Your task to perform on an android device: create a new album in the google photos Image 0: 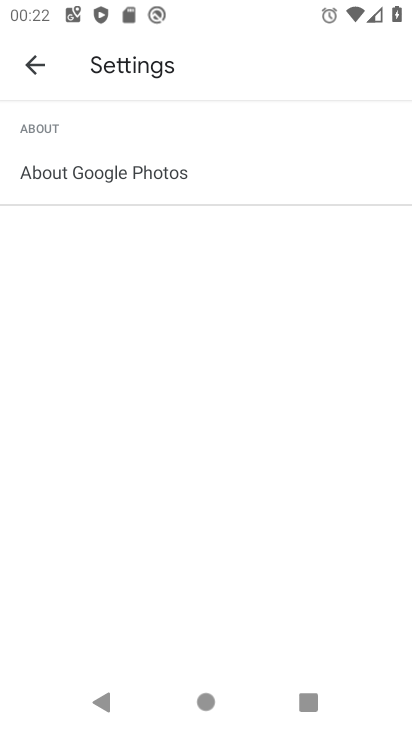
Step 0: press home button
Your task to perform on an android device: create a new album in the google photos Image 1: 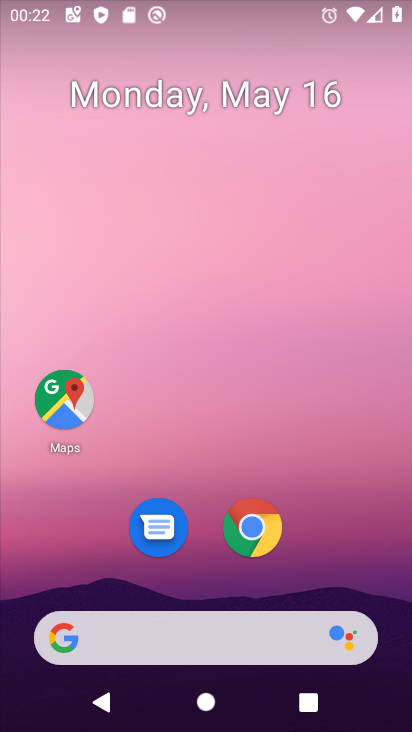
Step 1: drag from (329, 550) to (250, 20)
Your task to perform on an android device: create a new album in the google photos Image 2: 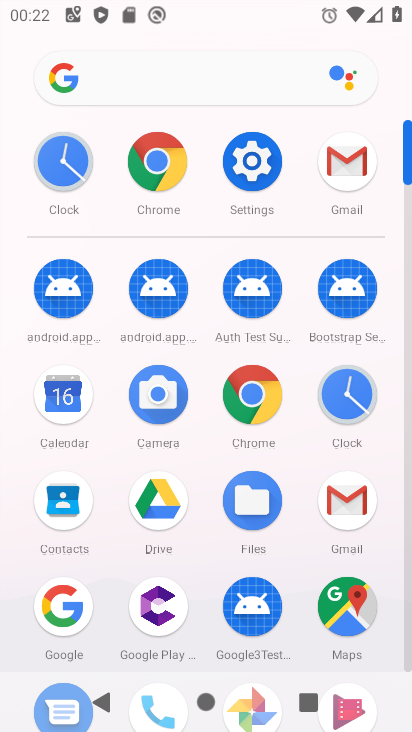
Step 2: click (407, 553)
Your task to perform on an android device: create a new album in the google photos Image 3: 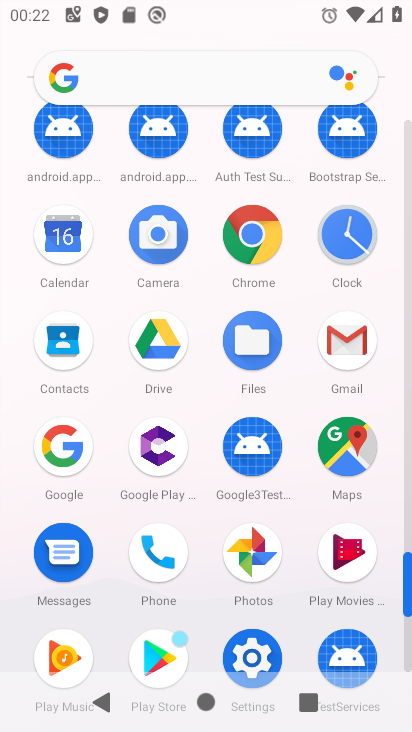
Step 3: click (255, 554)
Your task to perform on an android device: create a new album in the google photos Image 4: 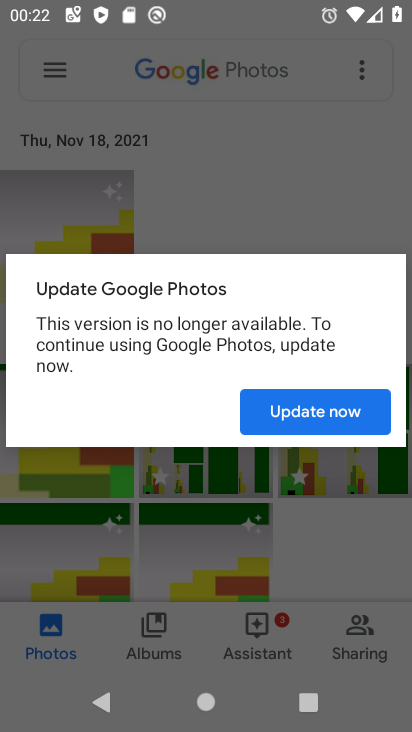
Step 4: click (272, 422)
Your task to perform on an android device: create a new album in the google photos Image 5: 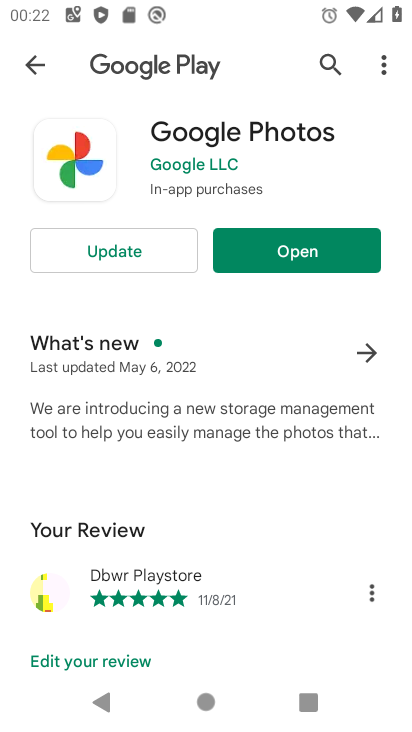
Step 5: click (120, 258)
Your task to perform on an android device: create a new album in the google photos Image 6: 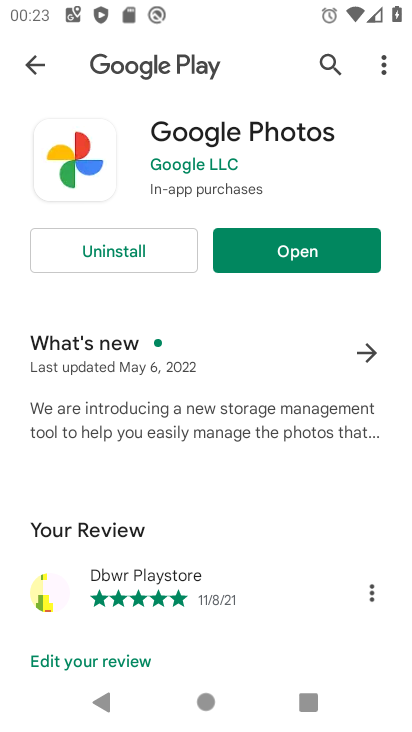
Step 6: click (279, 254)
Your task to perform on an android device: create a new album in the google photos Image 7: 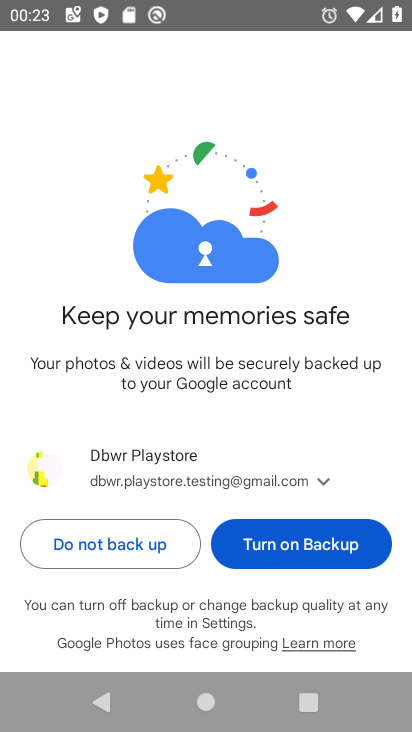
Step 7: click (249, 525)
Your task to perform on an android device: create a new album in the google photos Image 8: 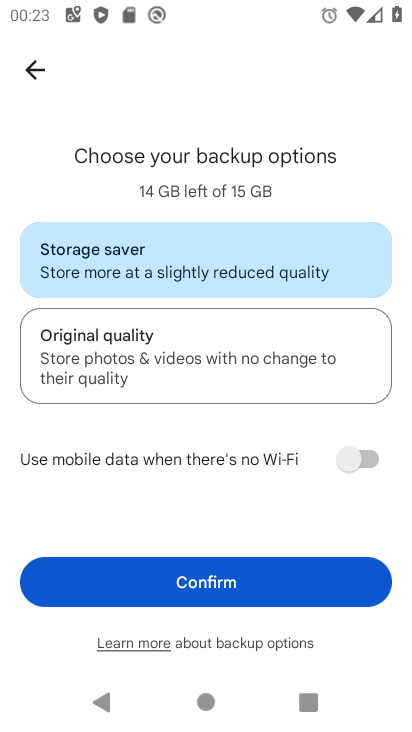
Step 8: click (249, 569)
Your task to perform on an android device: create a new album in the google photos Image 9: 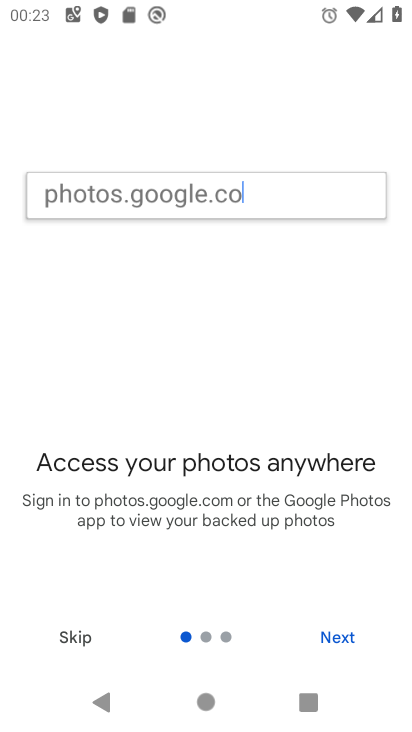
Step 9: click (346, 641)
Your task to perform on an android device: create a new album in the google photos Image 10: 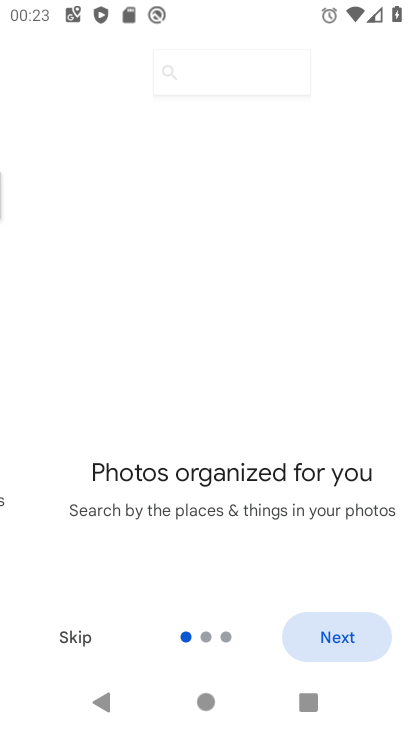
Step 10: click (346, 641)
Your task to perform on an android device: create a new album in the google photos Image 11: 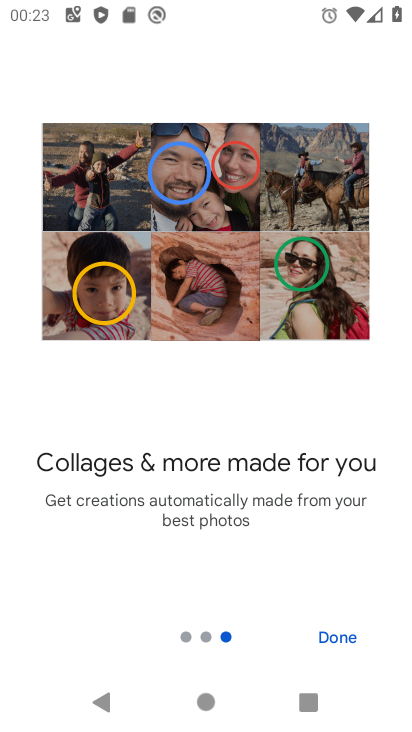
Step 11: click (346, 641)
Your task to perform on an android device: create a new album in the google photos Image 12: 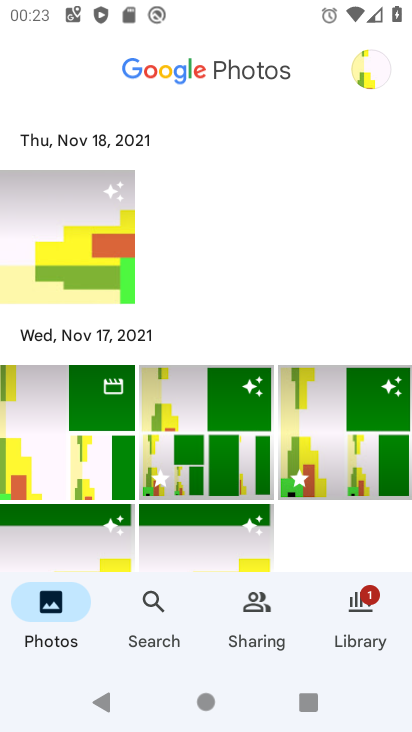
Step 12: click (382, 607)
Your task to perform on an android device: create a new album in the google photos Image 13: 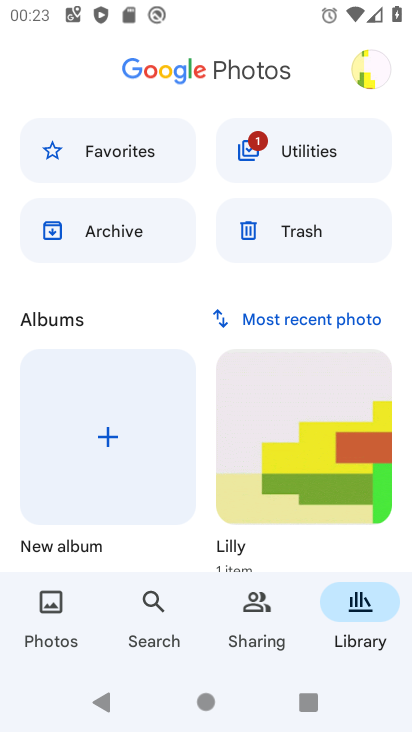
Step 13: click (101, 399)
Your task to perform on an android device: create a new album in the google photos Image 14: 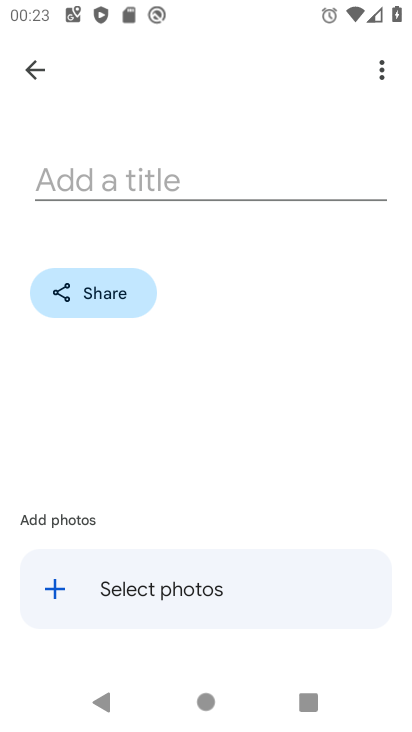
Step 14: click (133, 179)
Your task to perform on an android device: create a new album in the google photos Image 15: 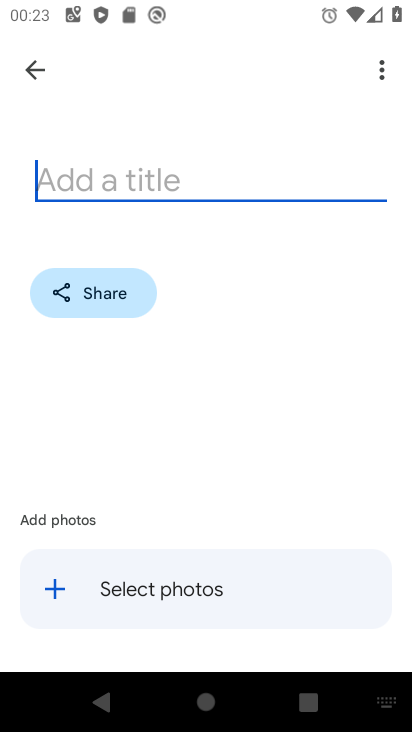
Step 15: type "dcsdvd"
Your task to perform on an android device: create a new album in the google photos Image 16: 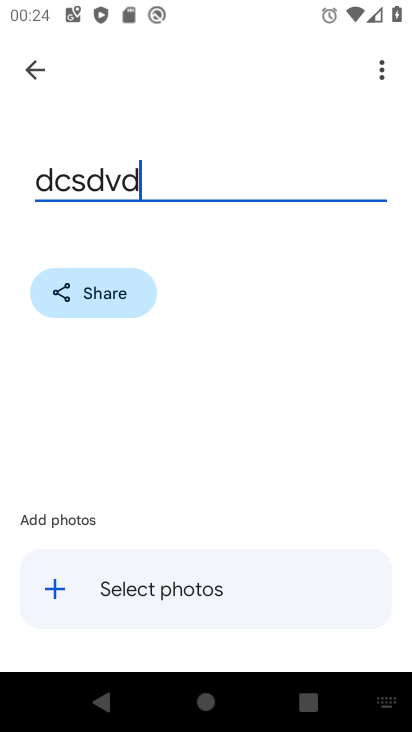
Step 16: click (186, 578)
Your task to perform on an android device: create a new album in the google photos Image 17: 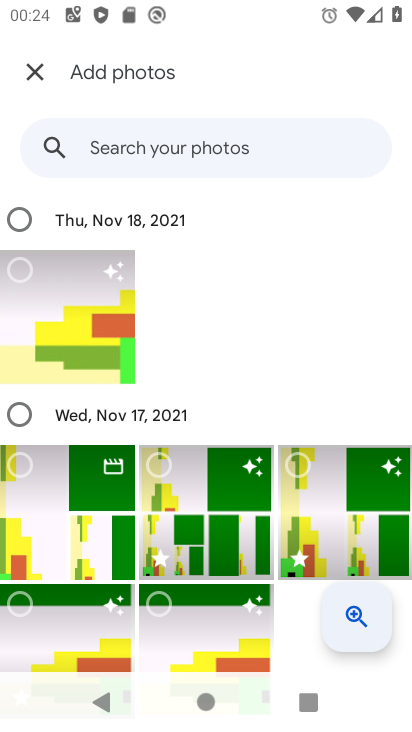
Step 17: click (30, 227)
Your task to perform on an android device: create a new album in the google photos Image 18: 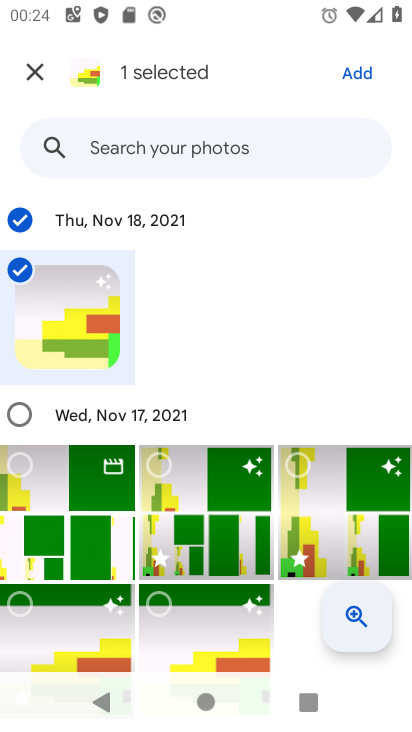
Step 18: click (18, 421)
Your task to perform on an android device: create a new album in the google photos Image 19: 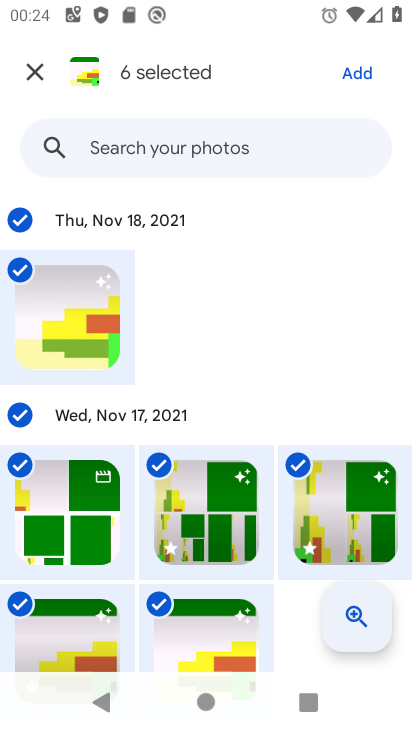
Step 19: click (347, 67)
Your task to perform on an android device: create a new album in the google photos Image 20: 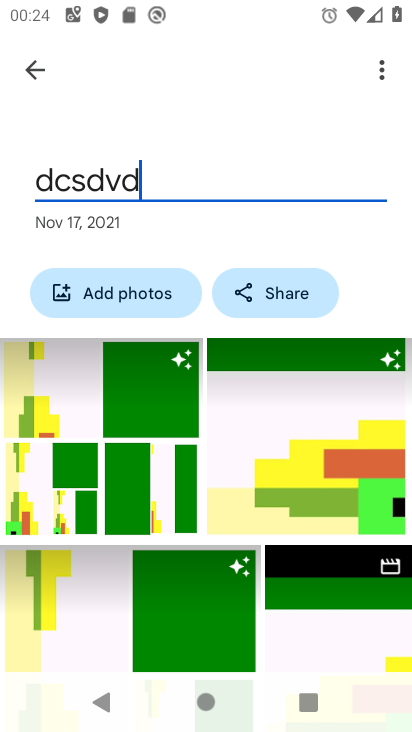
Step 20: task complete